Your task to perform on an android device: Empty the shopping cart on bestbuy. Image 0: 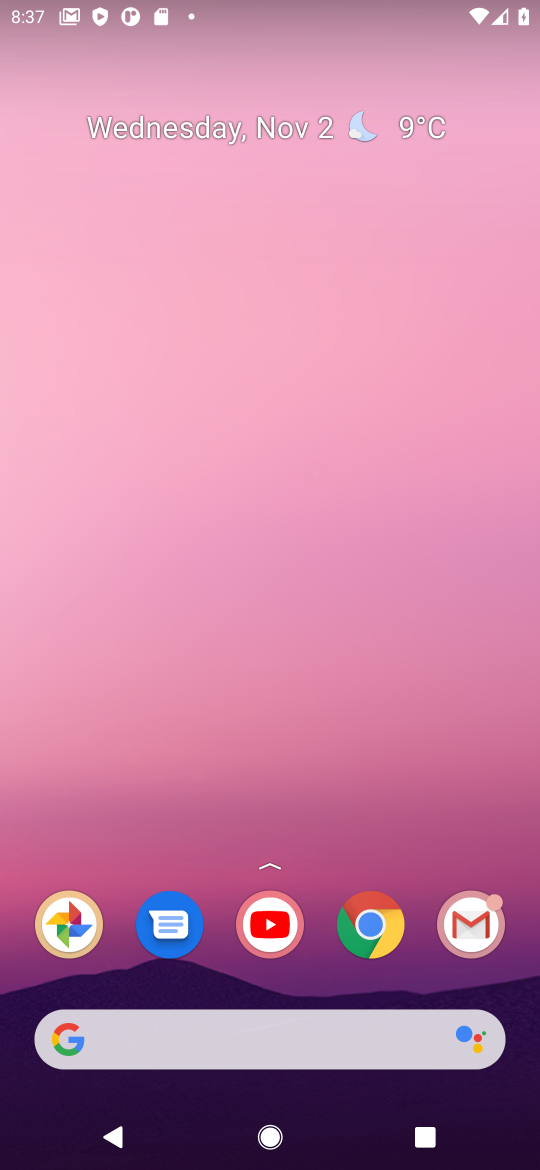
Step 0: click (401, 929)
Your task to perform on an android device: Empty the shopping cart on bestbuy. Image 1: 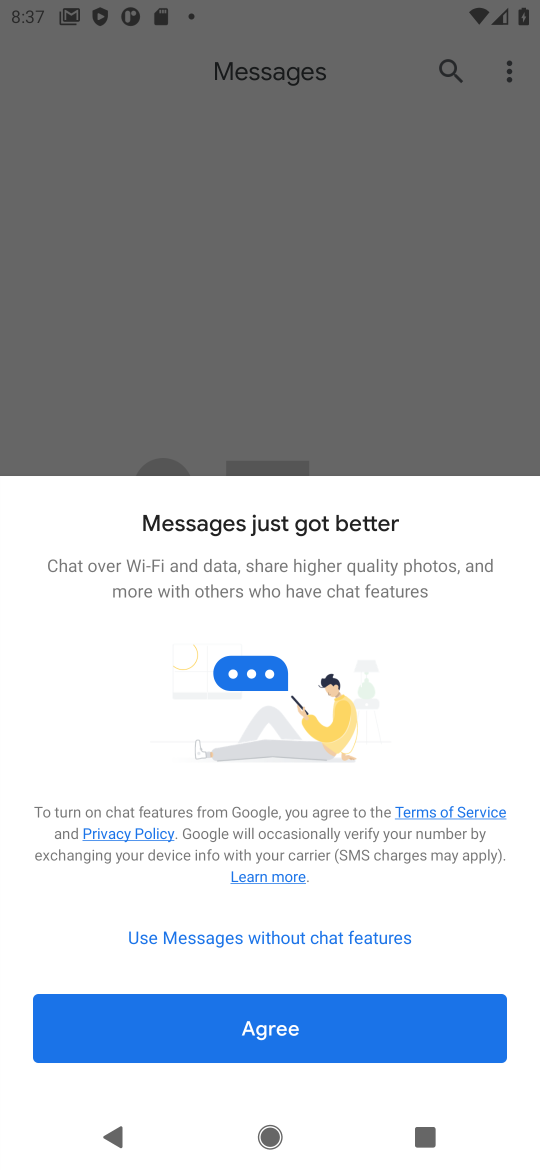
Step 1: press home button
Your task to perform on an android device: Empty the shopping cart on bestbuy. Image 2: 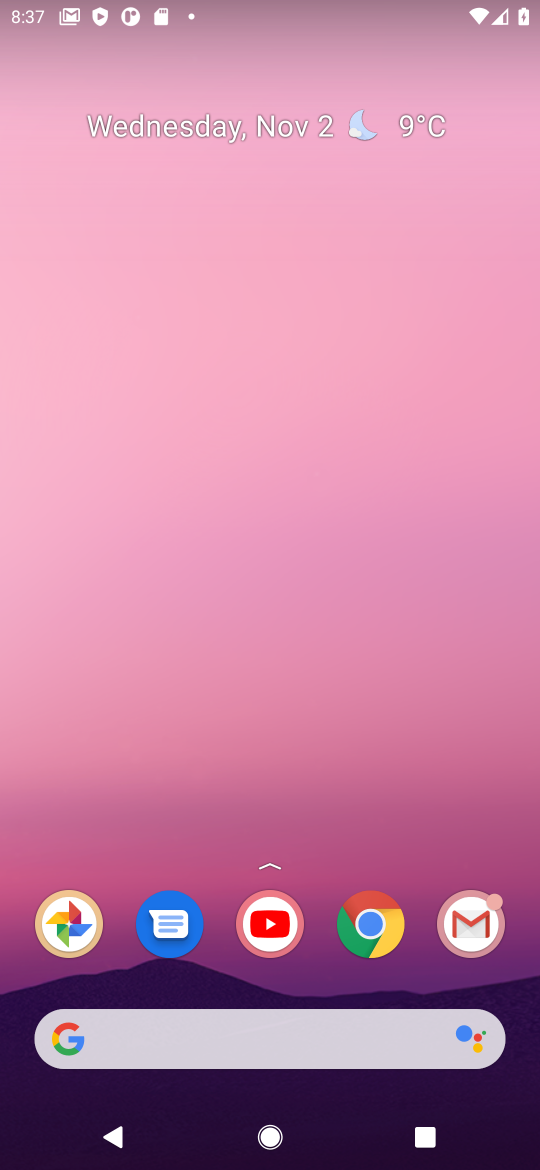
Step 2: click (353, 921)
Your task to perform on an android device: Empty the shopping cart on bestbuy. Image 3: 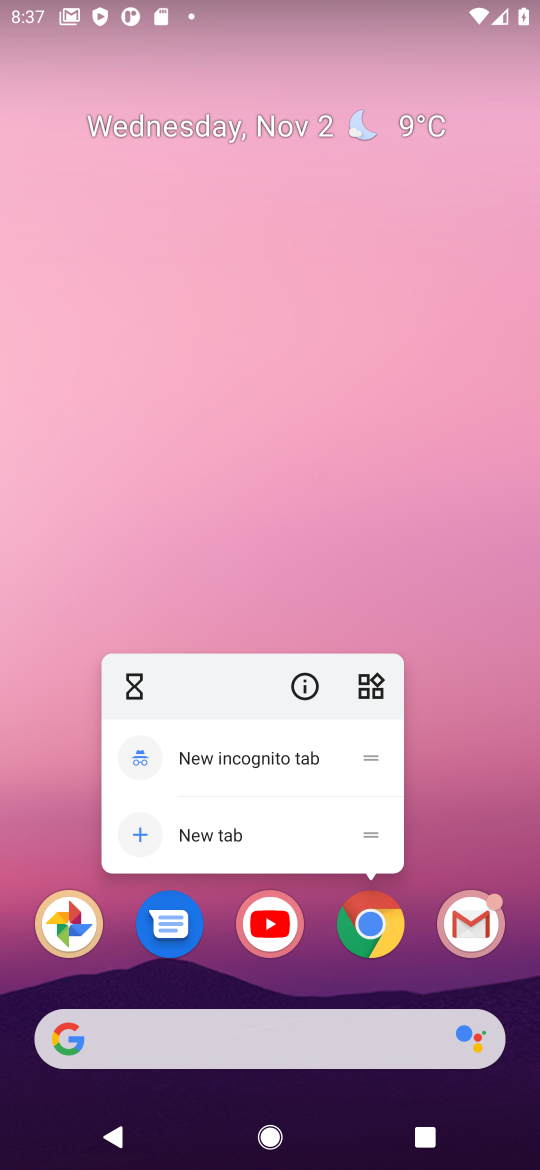
Step 3: click (353, 921)
Your task to perform on an android device: Empty the shopping cart on bestbuy. Image 4: 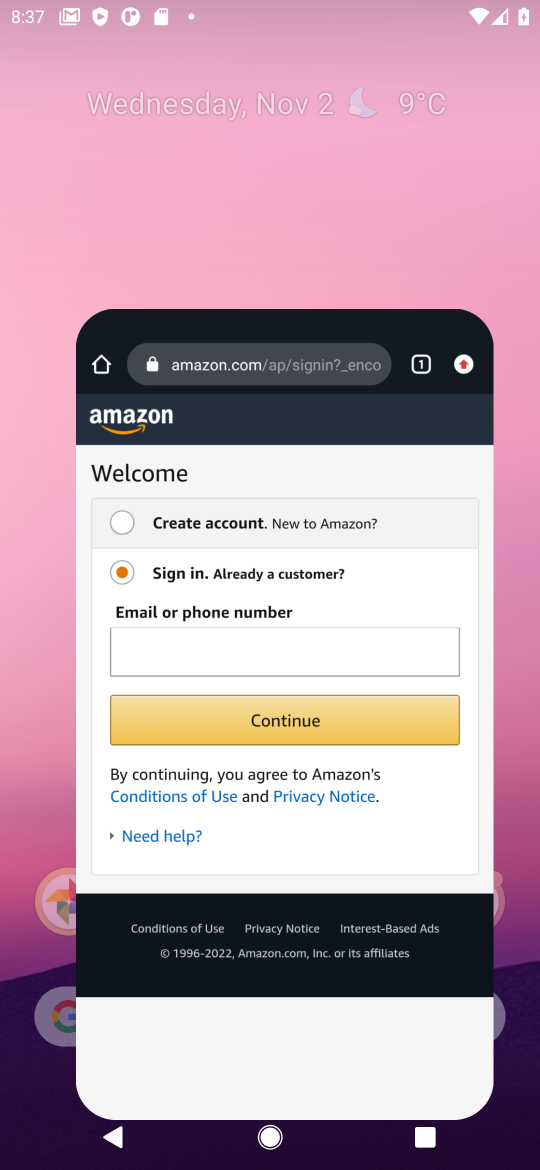
Step 4: click (376, 926)
Your task to perform on an android device: Empty the shopping cart on bestbuy. Image 5: 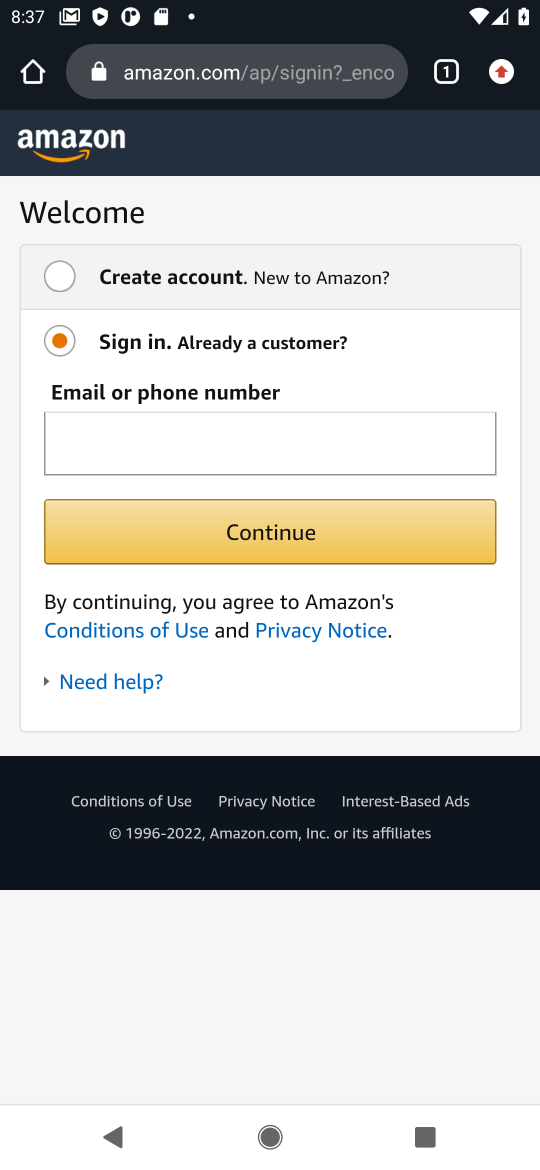
Step 5: click (179, 77)
Your task to perform on an android device: Empty the shopping cart on bestbuy. Image 6: 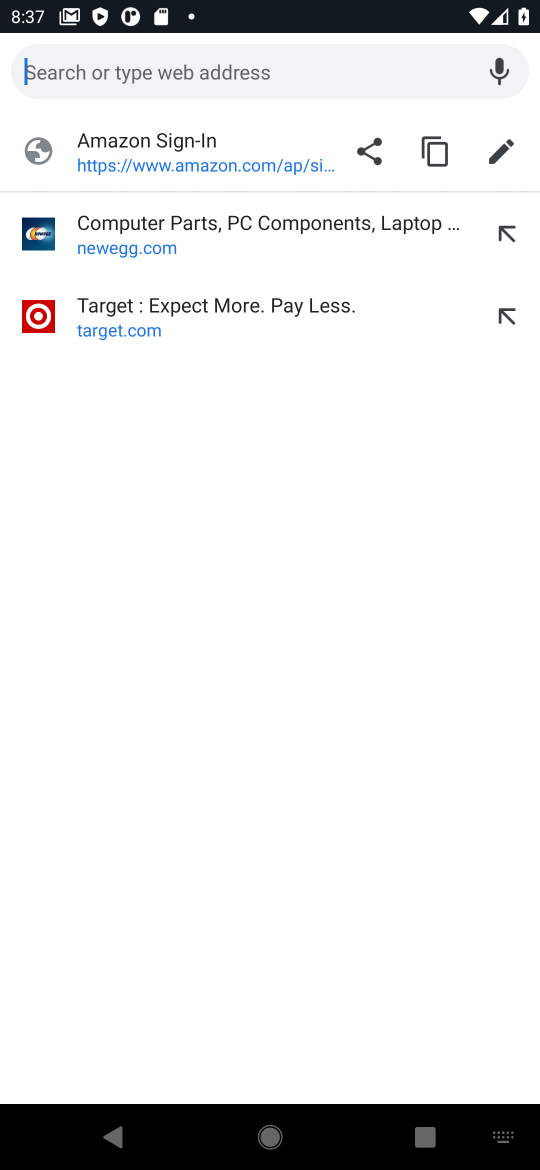
Step 6: type "bestbuy"
Your task to perform on an android device: Empty the shopping cart on bestbuy. Image 7: 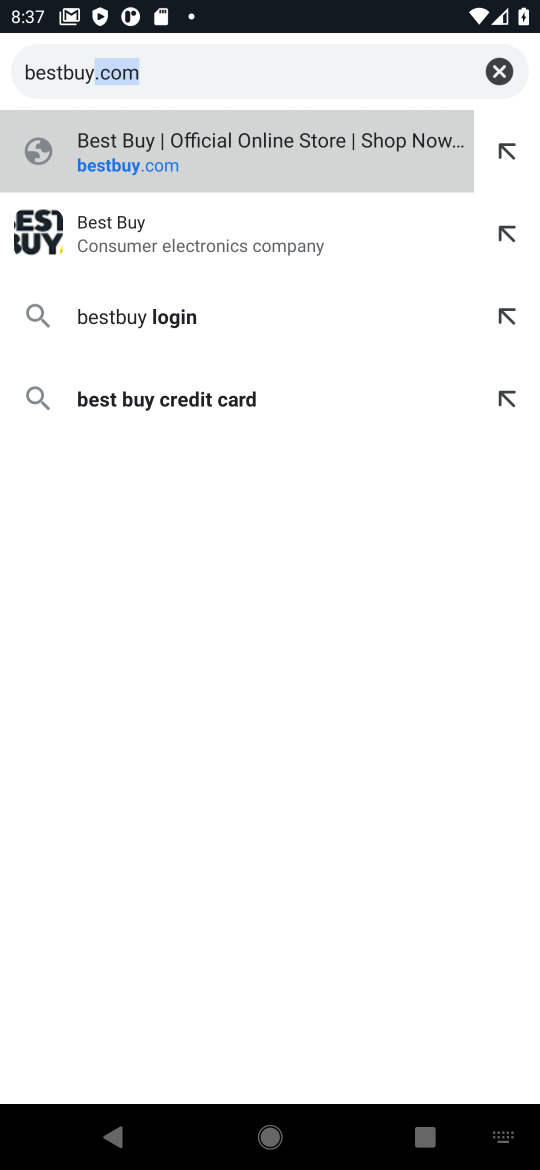
Step 7: type ""
Your task to perform on an android device: Empty the shopping cart on bestbuy. Image 8: 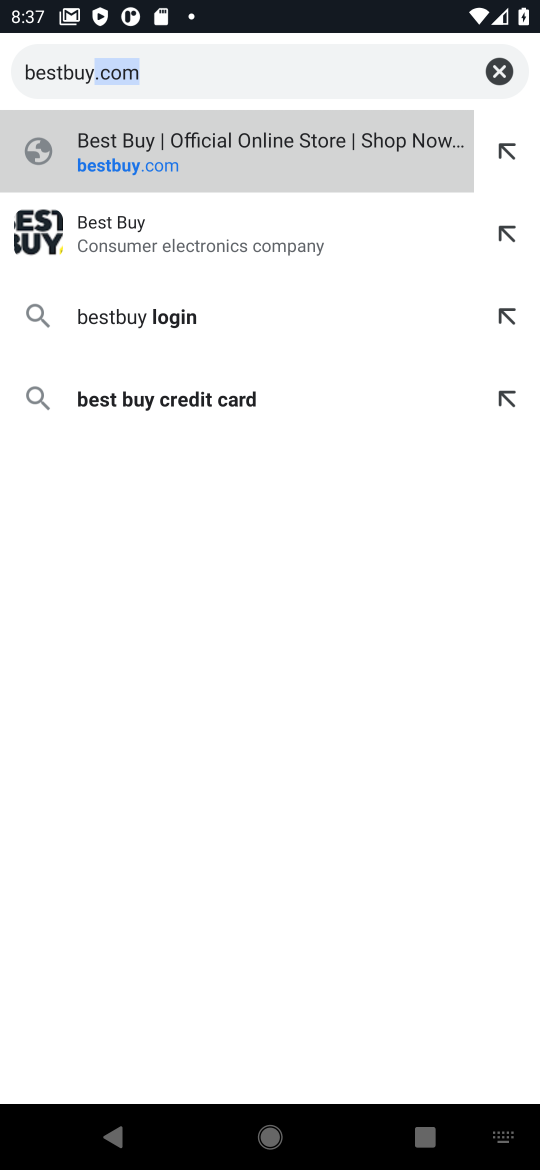
Step 8: click (115, 239)
Your task to perform on an android device: Empty the shopping cart on bestbuy. Image 9: 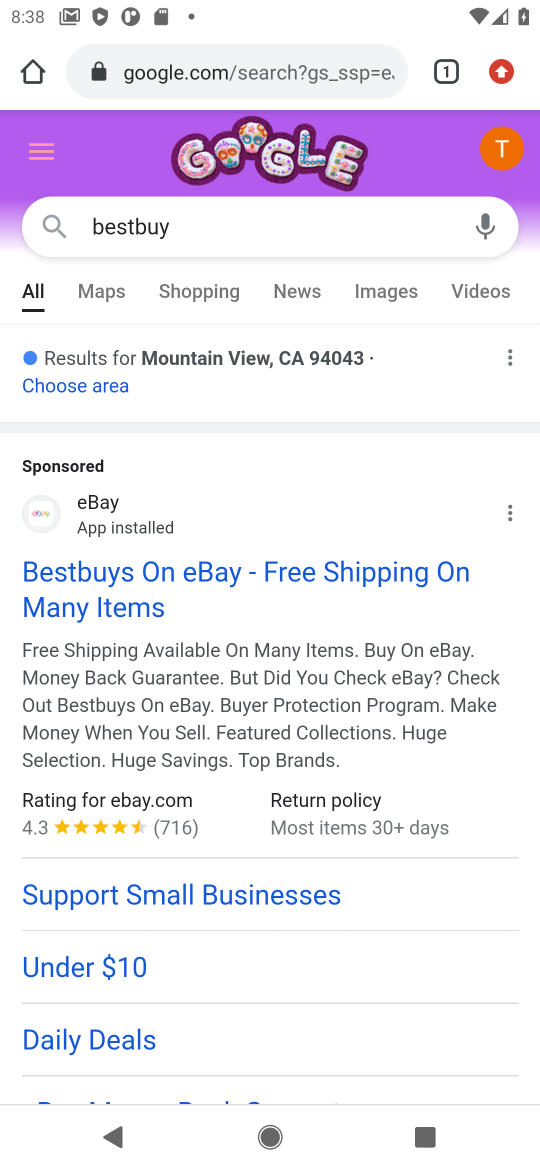
Step 9: click (89, 577)
Your task to perform on an android device: Empty the shopping cart on bestbuy. Image 10: 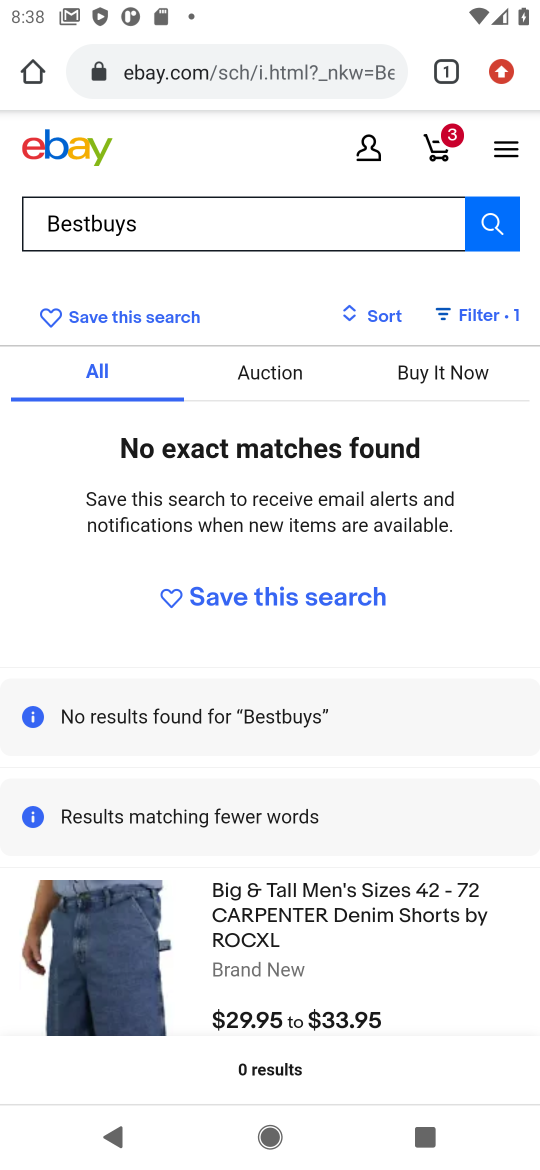
Step 10: click (340, 233)
Your task to perform on an android device: Empty the shopping cart on bestbuy. Image 11: 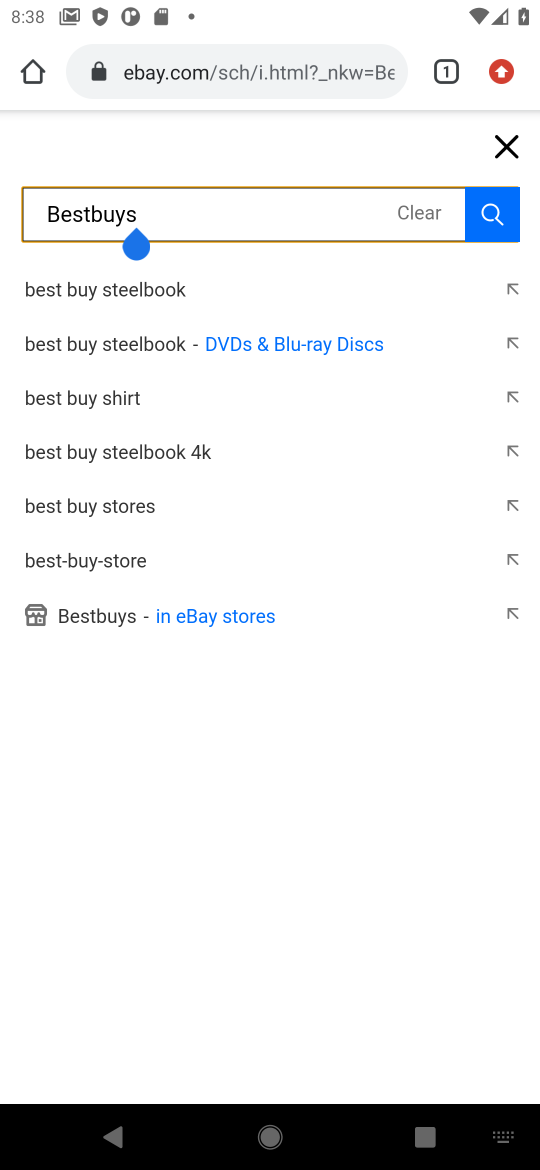
Step 11: click (406, 212)
Your task to perform on an android device: Empty the shopping cart on bestbuy. Image 12: 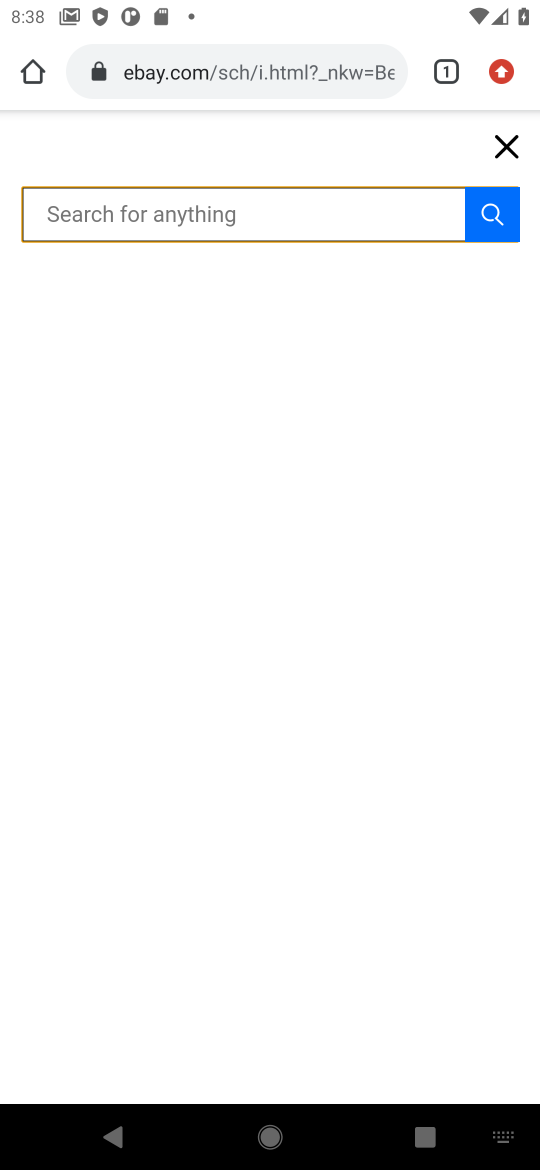
Step 12: press back button
Your task to perform on an android device: Empty the shopping cart on bestbuy. Image 13: 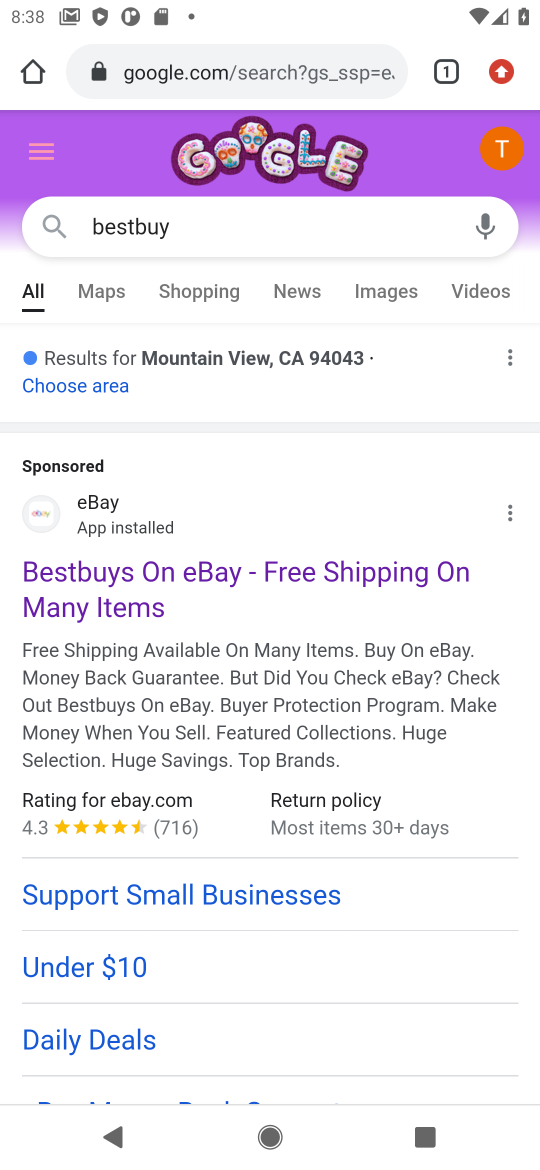
Step 13: click (104, 574)
Your task to perform on an android device: Empty the shopping cart on bestbuy. Image 14: 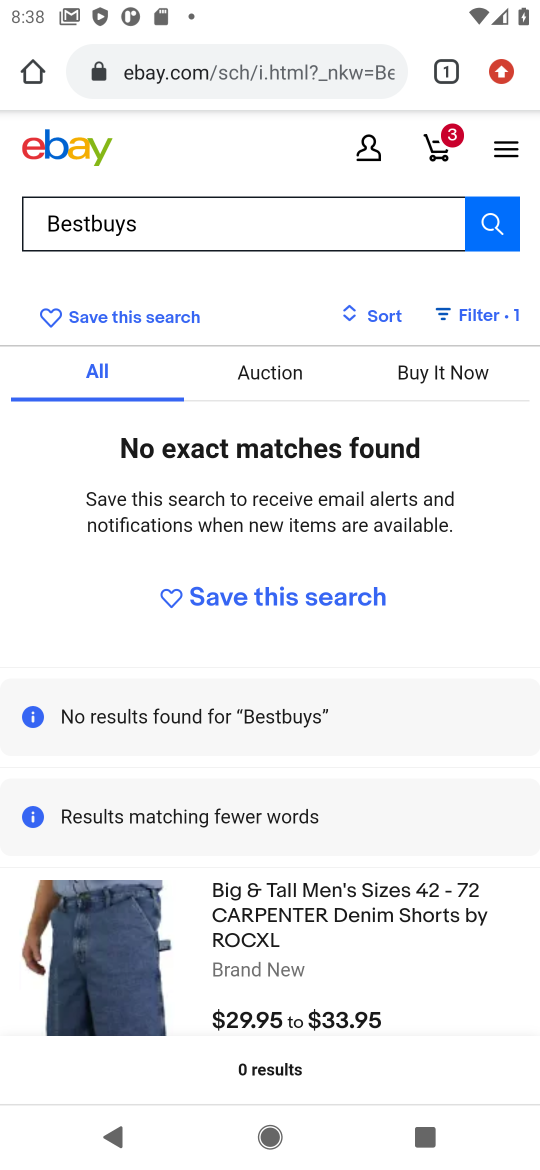
Step 14: click (432, 155)
Your task to perform on an android device: Empty the shopping cart on bestbuy. Image 15: 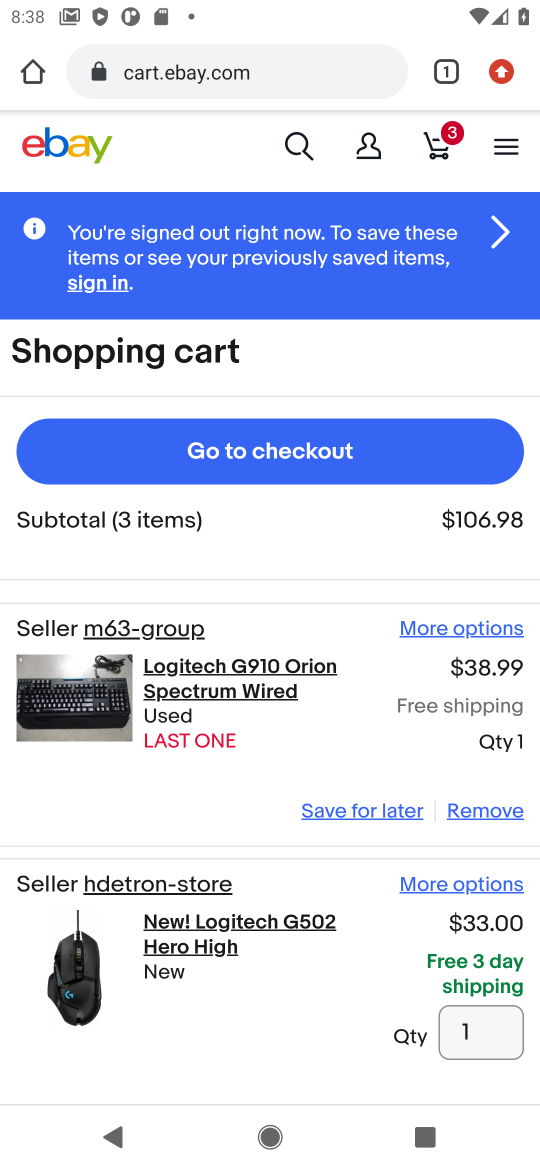
Step 15: click (472, 820)
Your task to perform on an android device: Empty the shopping cart on bestbuy. Image 16: 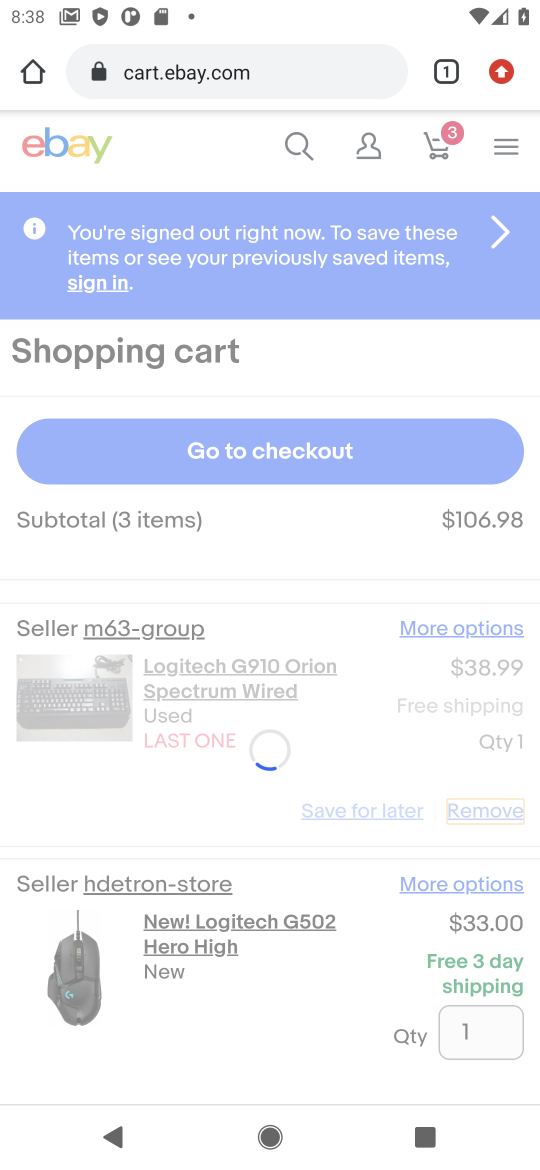
Step 16: click (472, 820)
Your task to perform on an android device: Empty the shopping cart on bestbuy. Image 17: 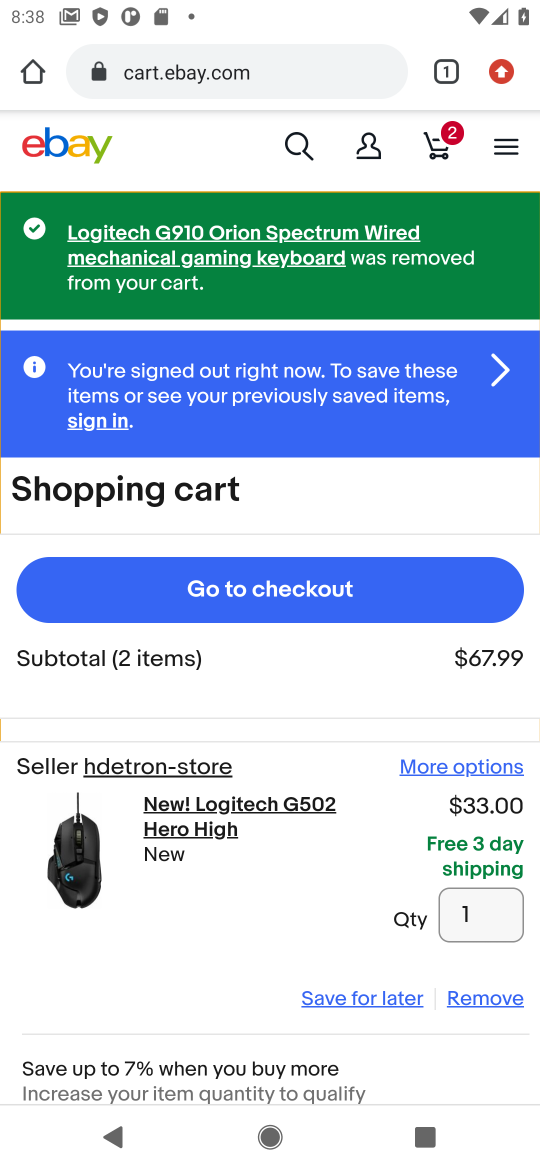
Step 17: drag from (294, 944) to (348, 639)
Your task to perform on an android device: Empty the shopping cart on bestbuy. Image 18: 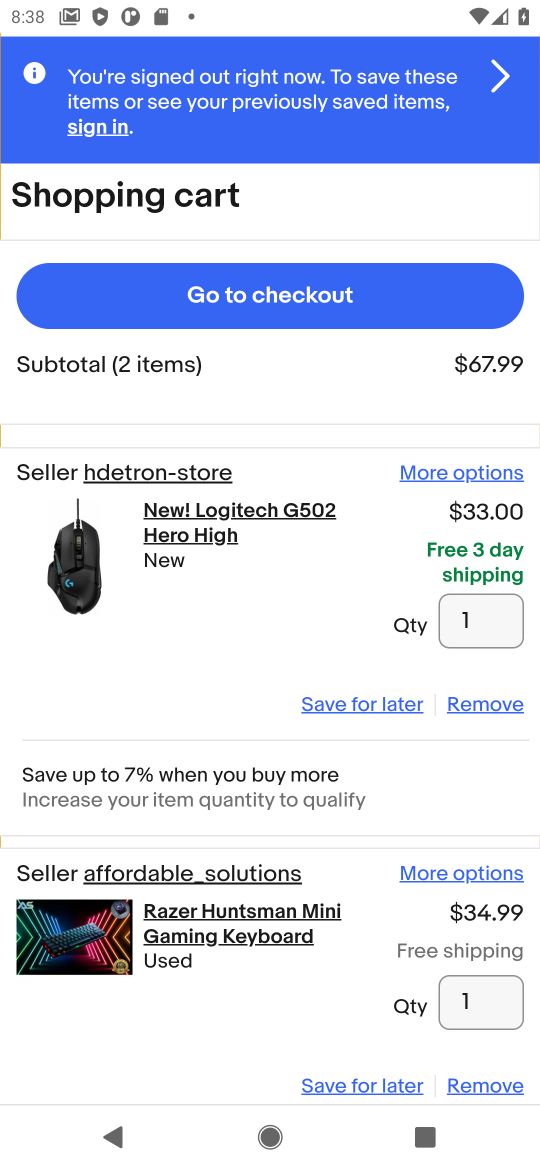
Step 18: click (505, 700)
Your task to perform on an android device: Empty the shopping cart on bestbuy. Image 19: 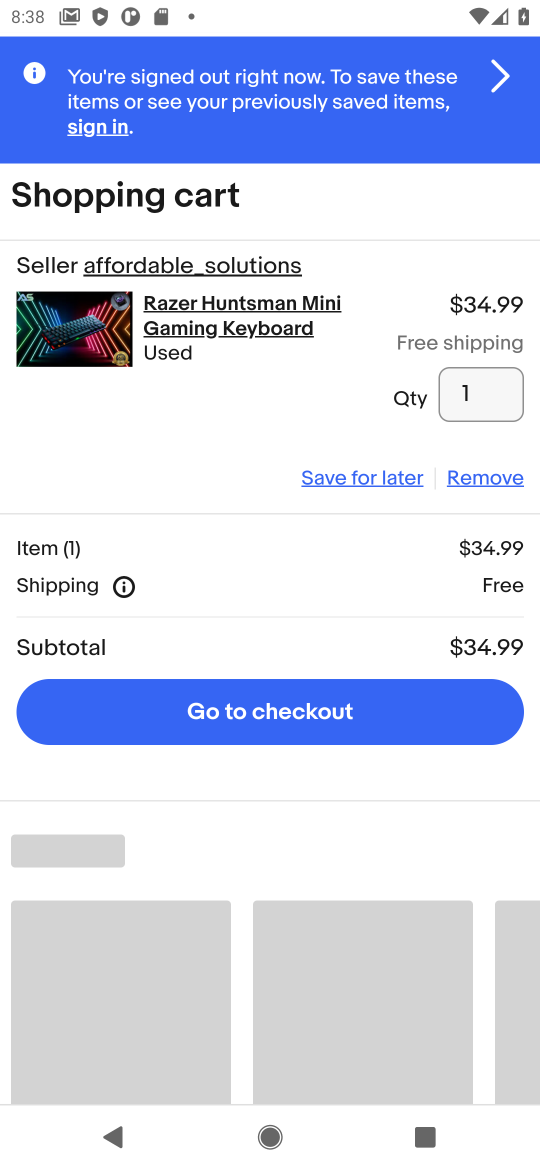
Step 19: drag from (283, 1019) to (312, 804)
Your task to perform on an android device: Empty the shopping cart on bestbuy. Image 20: 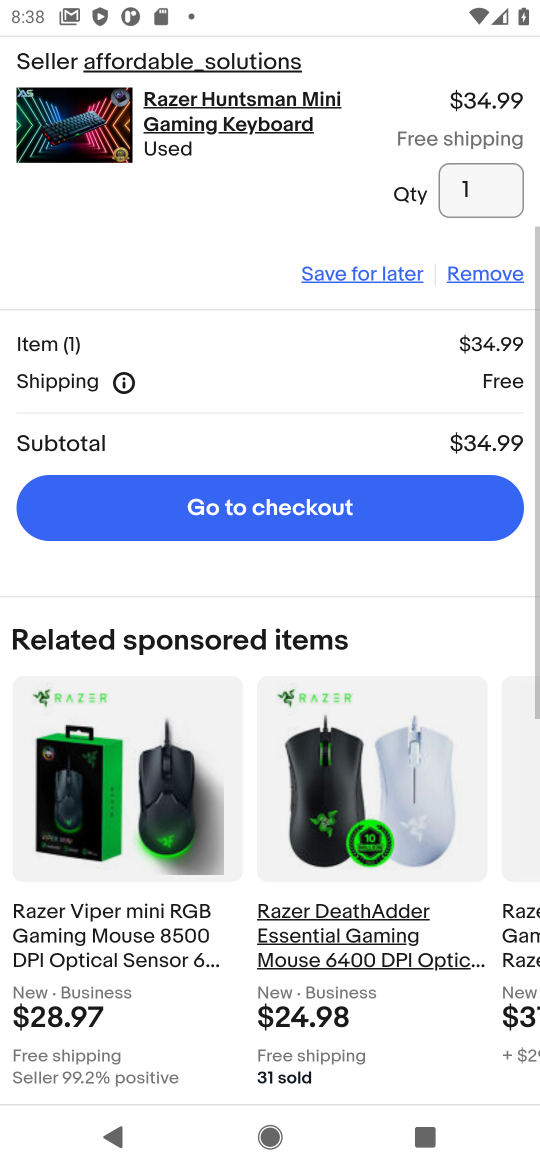
Step 20: click (484, 271)
Your task to perform on an android device: Empty the shopping cart on bestbuy. Image 21: 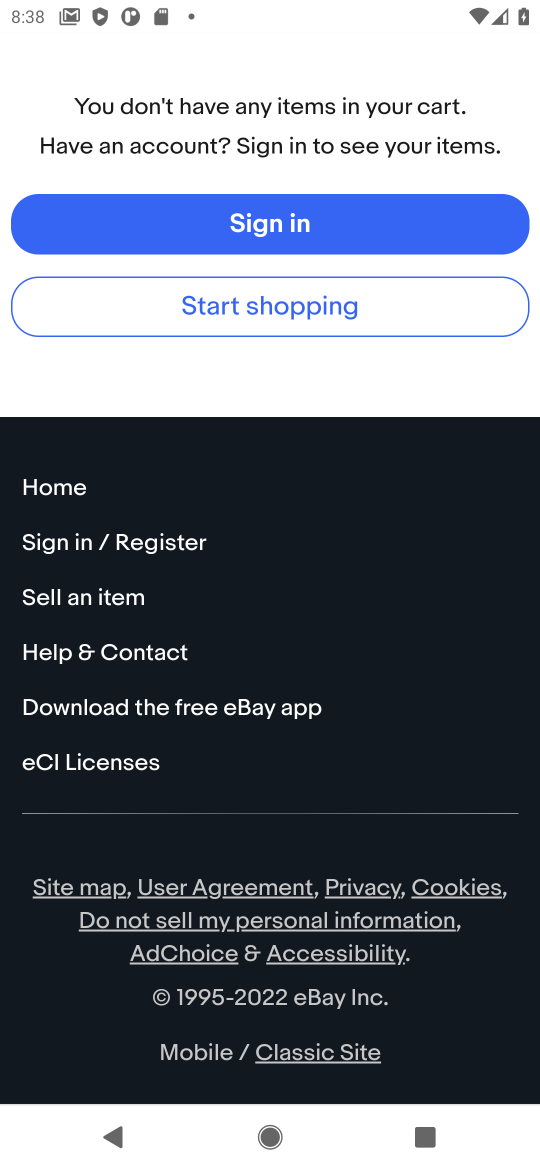
Step 21: task complete